Your task to perform on an android device: Open Wikipedia Image 0: 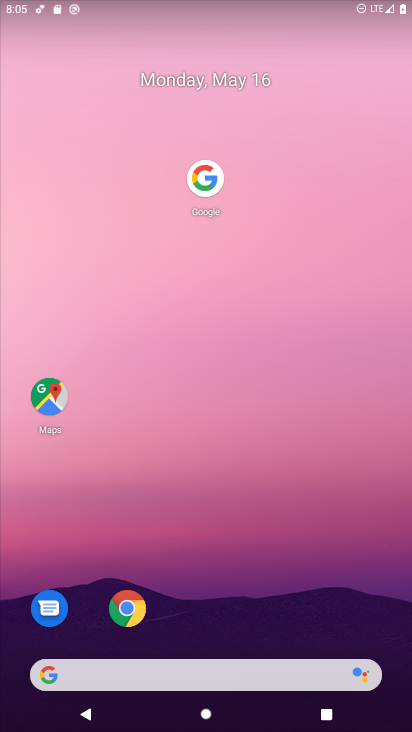
Step 0: click (127, 610)
Your task to perform on an android device: Open Wikipedia Image 1: 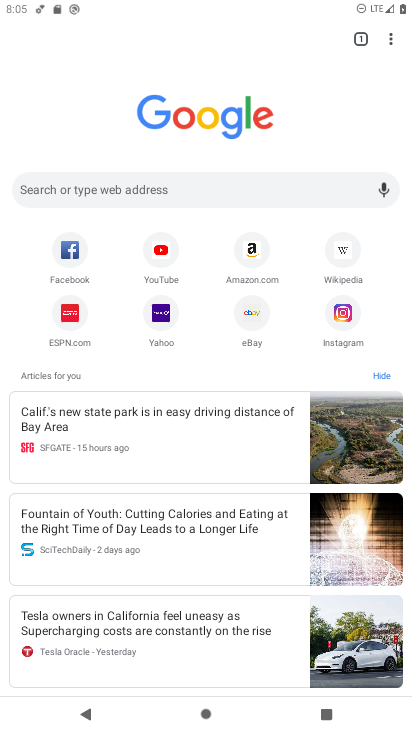
Step 1: click (345, 249)
Your task to perform on an android device: Open Wikipedia Image 2: 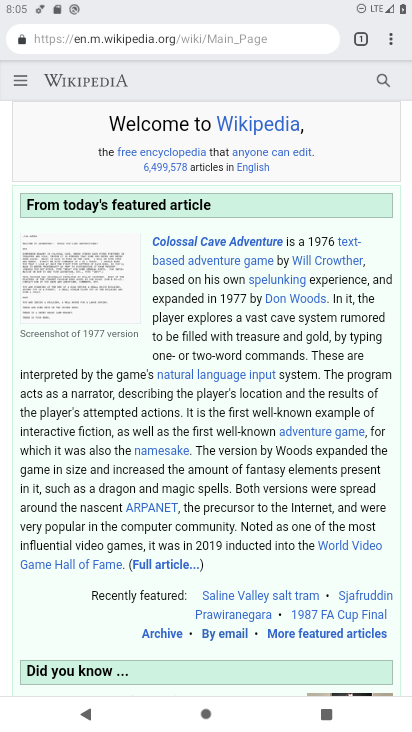
Step 2: task complete